Your task to perform on an android device: Search for seafood restaurants on Google Maps Image 0: 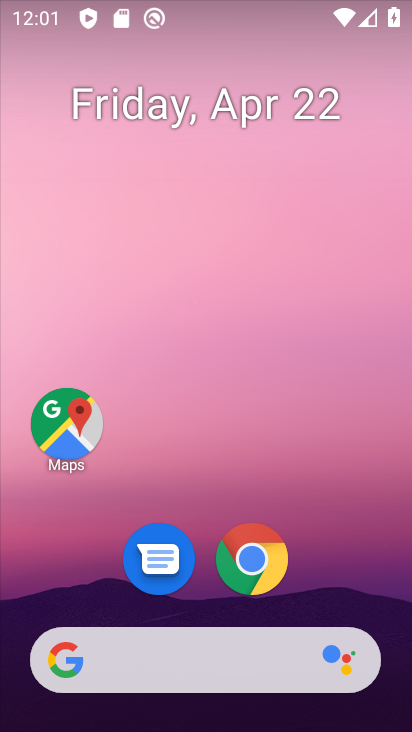
Step 0: click (43, 388)
Your task to perform on an android device: Search for seafood restaurants on Google Maps Image 1: 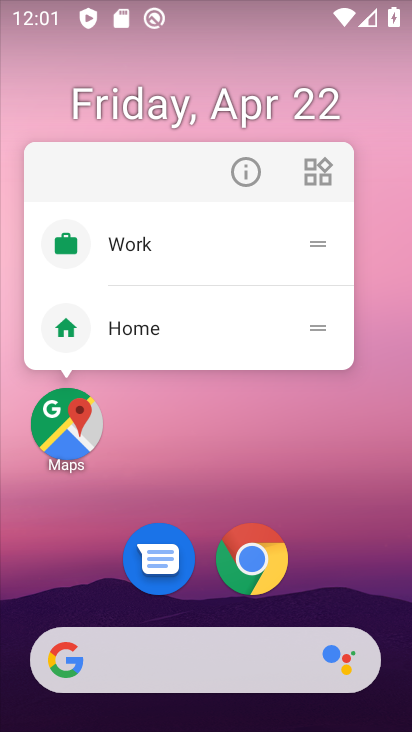
Step 1: click (66, 425)
Your task to perform on an android device: Search for seafood restaurants on Google Maps Image 2: 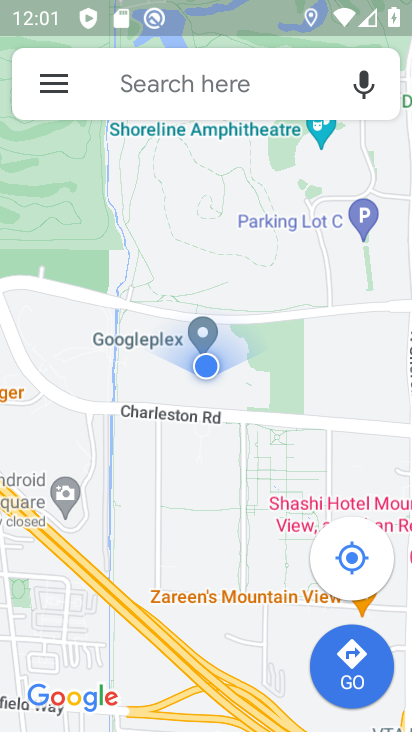
Step 2: click (190, 88)
Your task to perform on an android device: Search for seafood restaurants on Google Maps Image 3: 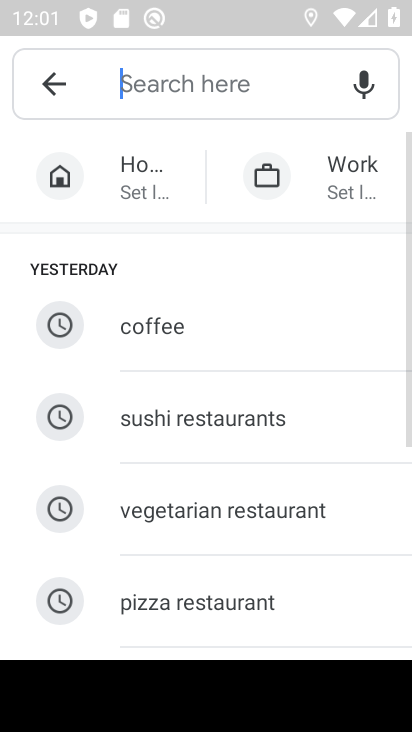
Step 3: drag from (184, 567) to (242, 334)
Your task to perform on an android device: Search for seafood restaurants on Google Maps Image 4: 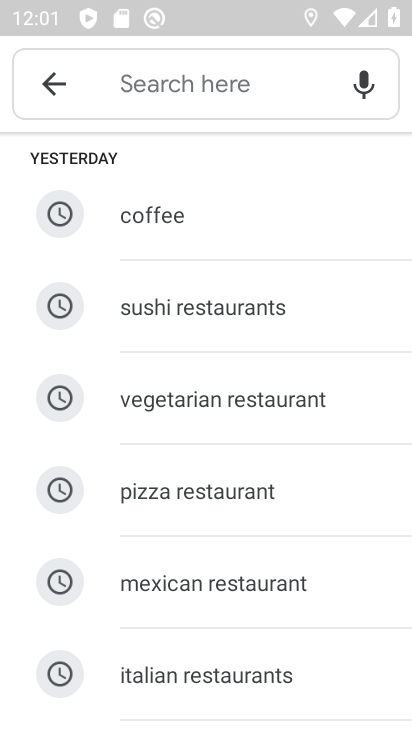
Step 4: drag from (175, 667) to (206, 369)
Your task to perform on an android device: Search for seafood restaurants on Google Maps Image 5: 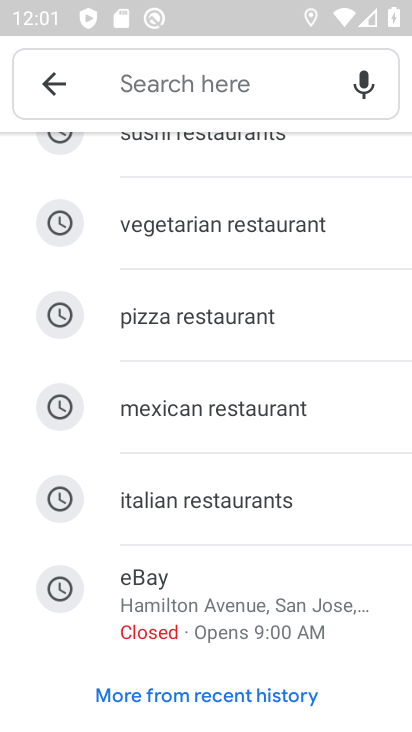
Step 5: click (214, 94)
Your task to perform on an android device: Search for seafood restaurants on Google Maps Image 6: 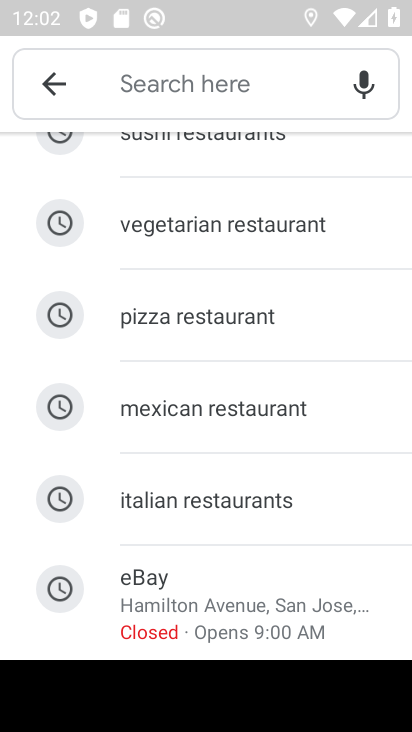
Step 6: type "seafood restaurants"
Your task to perform on an android device: Search for seafood restaurants on Google Maps Image 7: 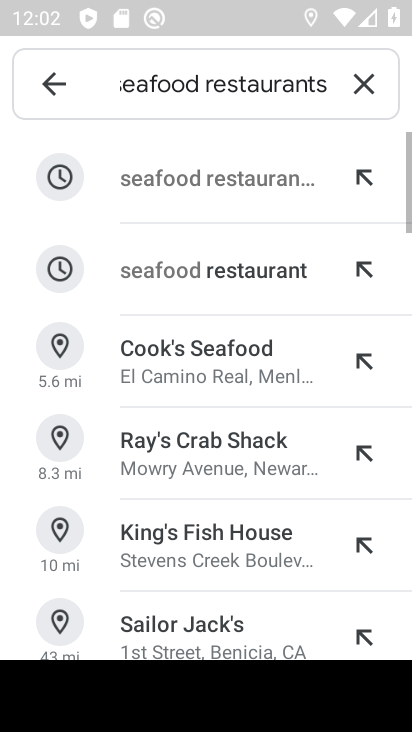
Step 7: click (199, 177)
Your task to perform on an android device: Search for seafood restaurants on Google Maps Image 8: 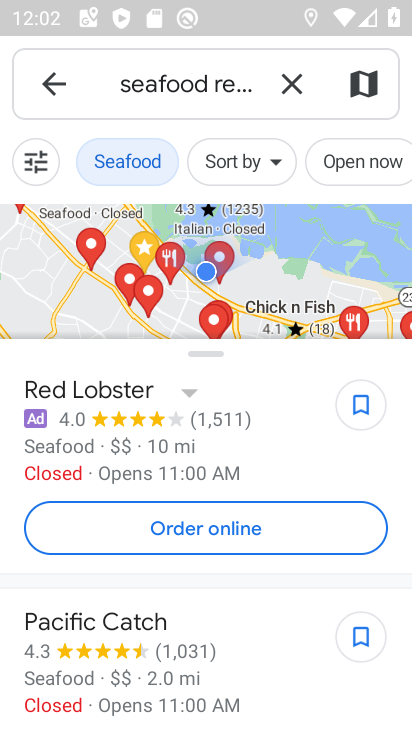
Step 8: task complete